Your task to perform on an android device: Open maps Image 0: 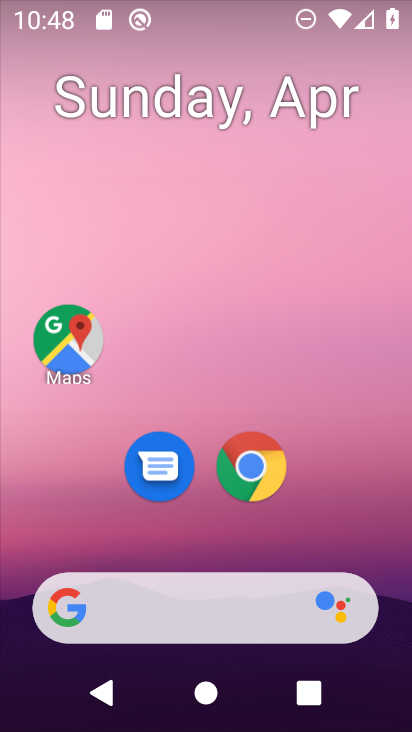
Step 0: drag from (384, 513) to (396, 120)
Your task to perform on an android device: Open maps Image 1: 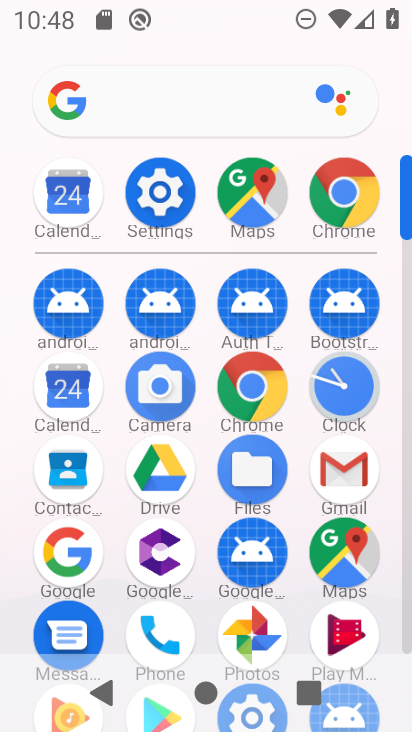
Step 1: click (340, 552)
Your task to perform on an android device: Open maps Image 2: 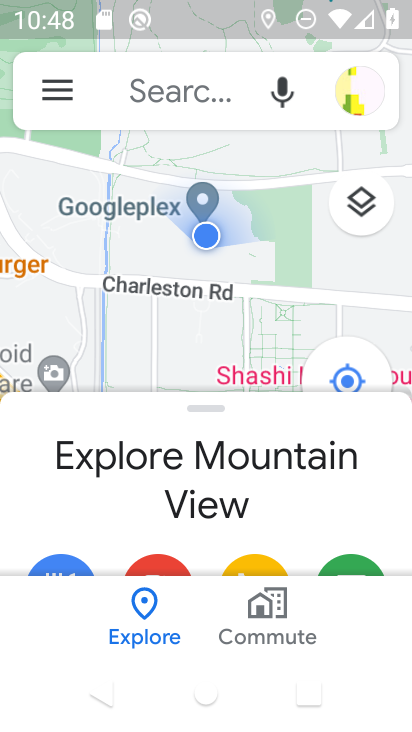
Step 2: task complete